Your task to perform on an android device: set the stopwatch Image 0: 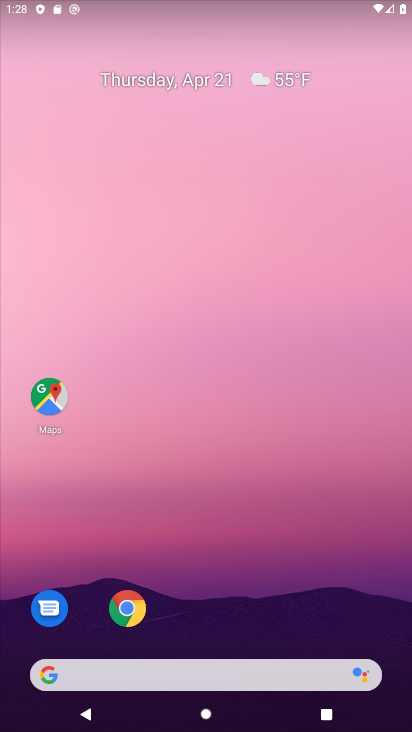
Step 0: drag from (224, 606) to (90, 104)
Your task to perform on an android device: set the stopwatch Image 1: 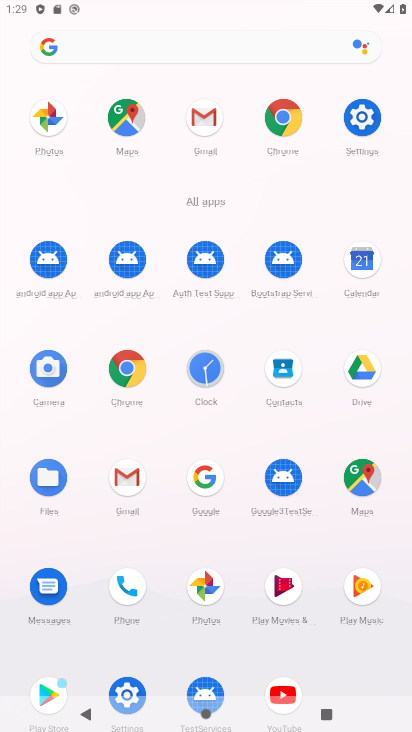
Step 1: click (199, 366)
Your task to perform on an android device: set the stopwatch Image 2: 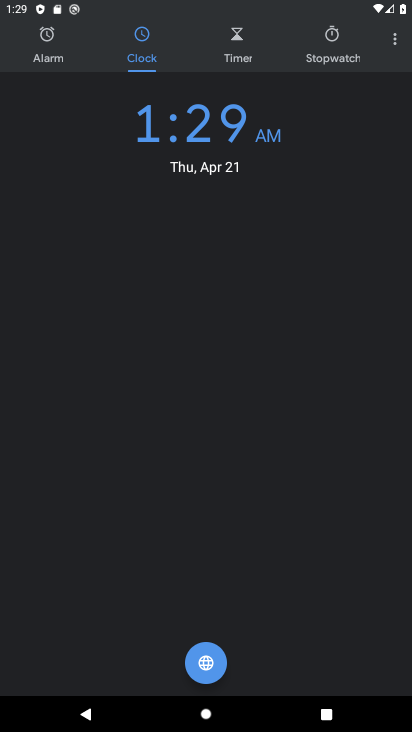
Step 2: click (326, 53)
Your task to perform on an android device: set the stopwatch Image 3: 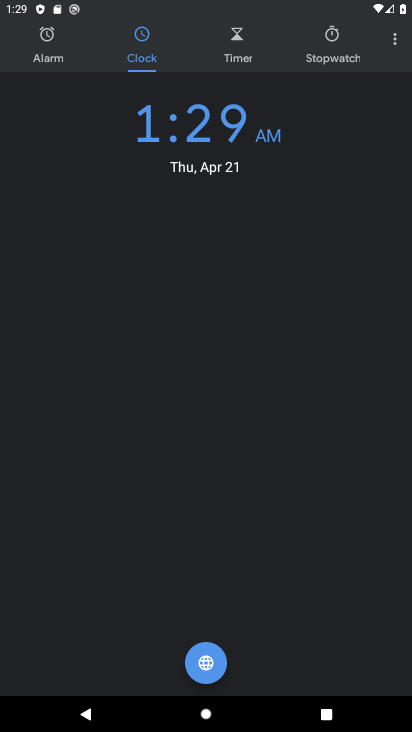
Step 3: click (326, 53)
Your task to perform on an android device: set the stopwatch Image 4: 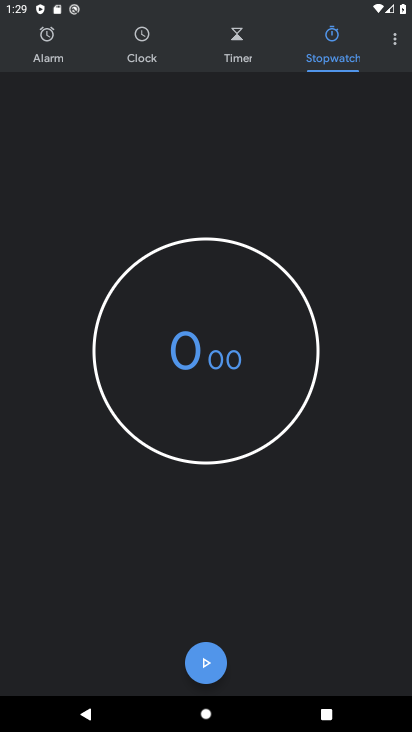
Step 4: click (208, 663)
Your task to perform on an android device: set the stopwatch Image 5: 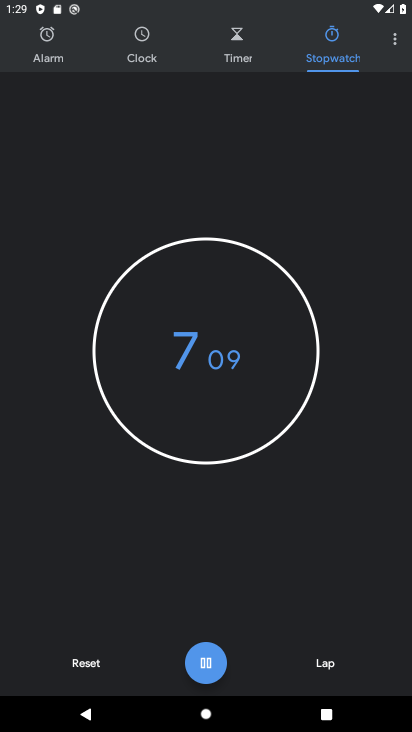
Step 5: click (328, 667)
Your task to perform on an android device: set the stopwatch Image 6: 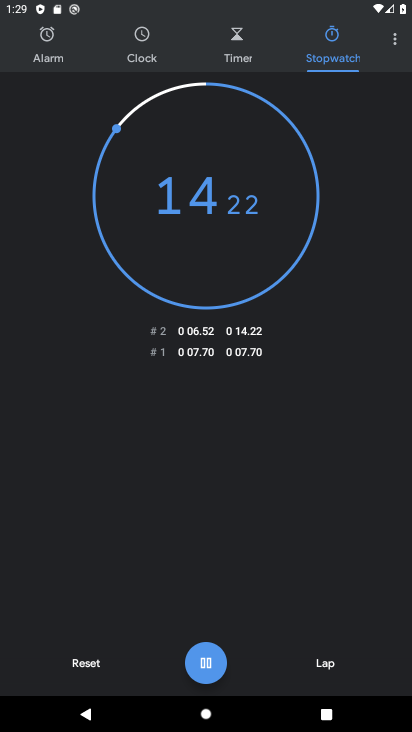
Step 6: click (328, 667)
Your task to perform on an android device: set the stopwatch Image 7: 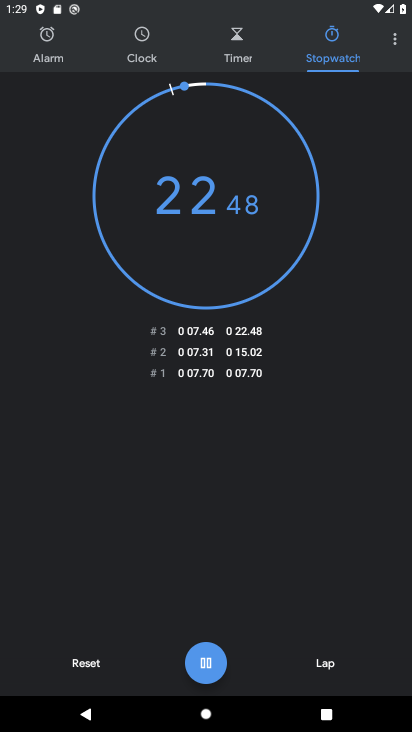
Step 7: click (328, 667)
Your task to perform on an android device: set the stopwatch Image 8: 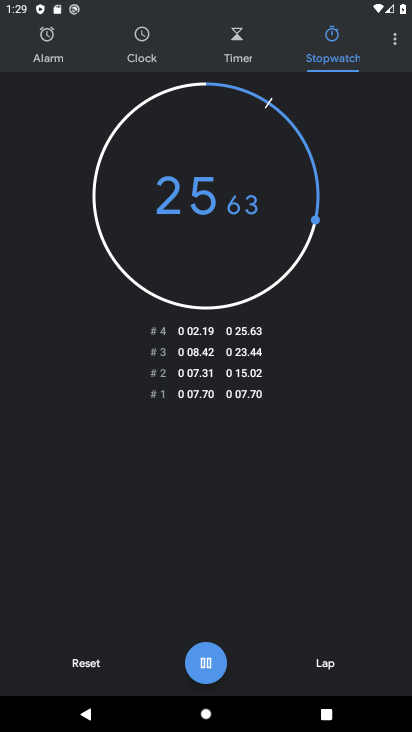
Step 8: click (209, 668)
Your task to perform on an android device: set the stopwatch Image 9: 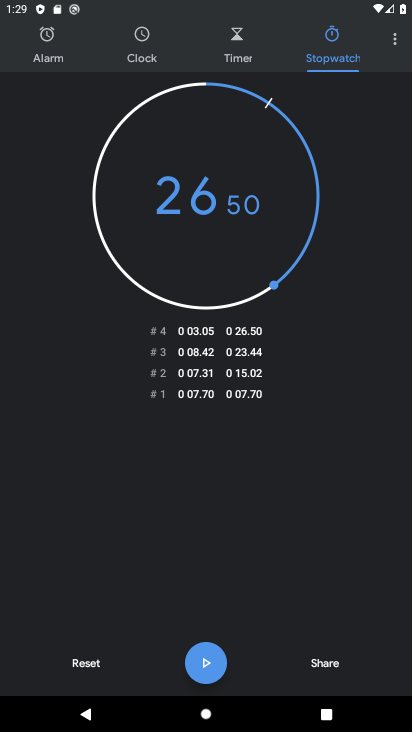
Step 9: task complete